Your task to perform on an android device: Open Yahoo.com Image 0: 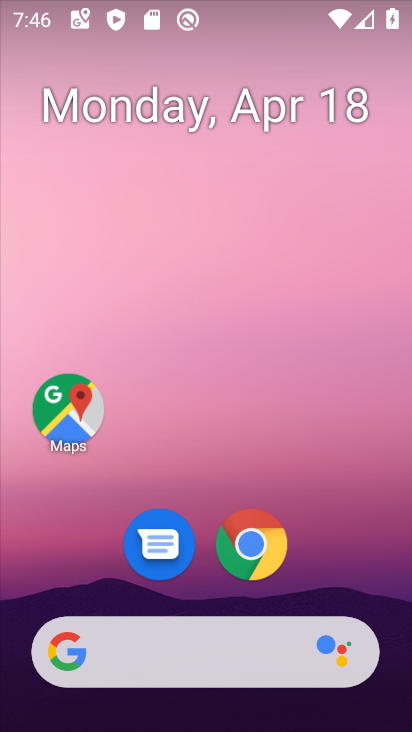
Step 0: click (255, 548)
Your task to perform on an android device: Open Yahoo.com Image 1: 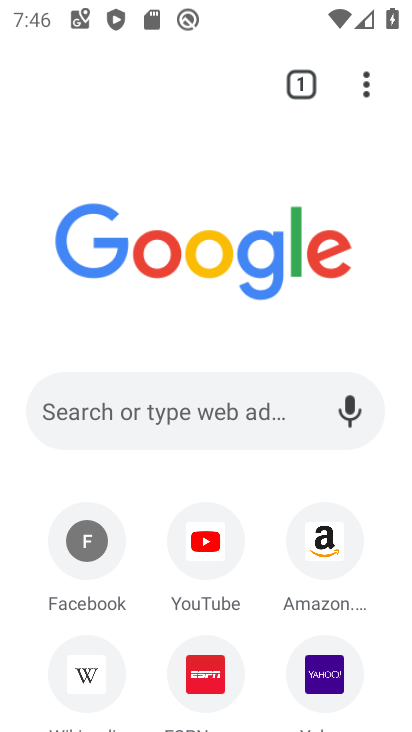
Step 1: click (329, 664)
Your task to perform on an android device: Open Yahoo.com Image 2: 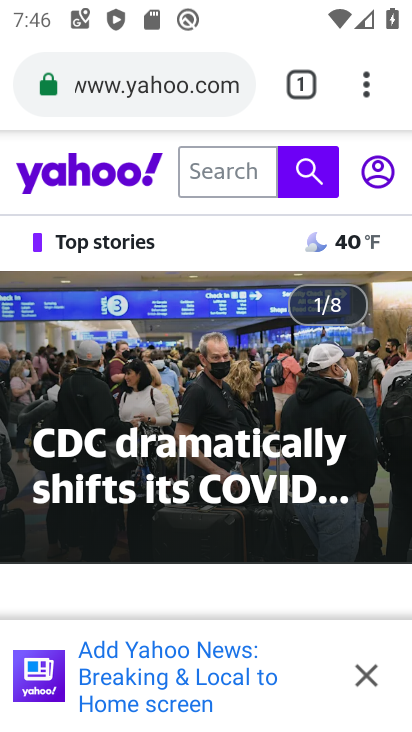
Step 2: task complete